Your task to perform on an android device: Open Google Chrome Image 0: 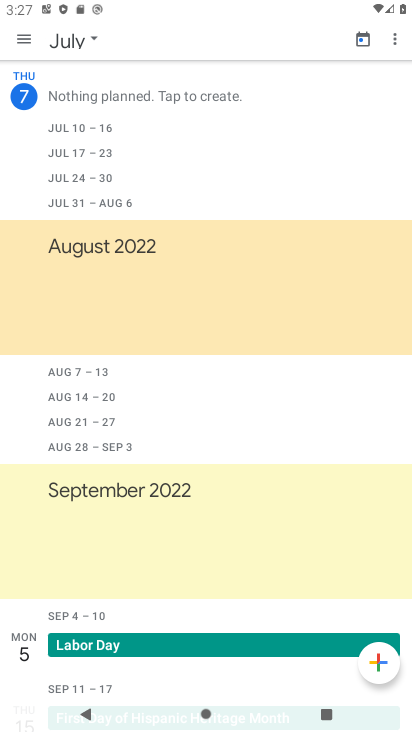
Step 0: press home button
Your task to perform on an android device: Open Google Chrome Image 1: 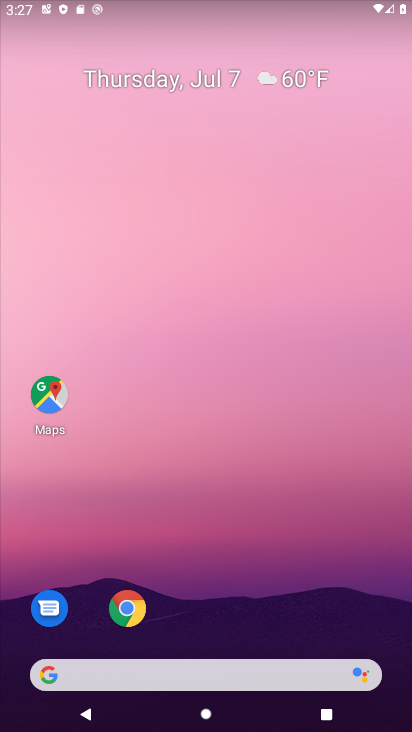
Step 1: click (119, 602)
Your task to perform on an android device: Open Google Chrome Image 2: 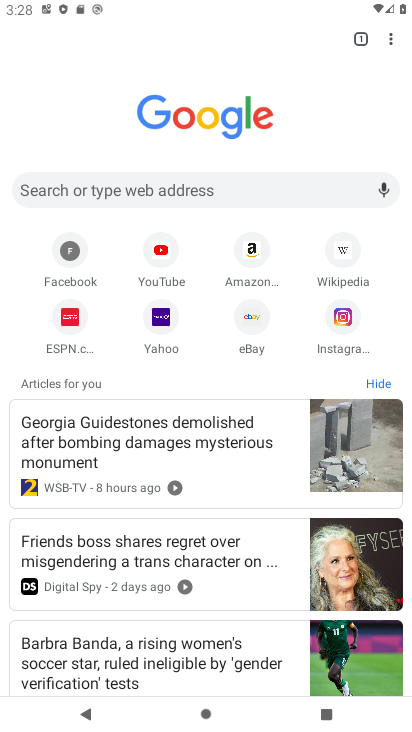
Step 2: task complete